Your task to perform on an android device: turn off location history Image 0: 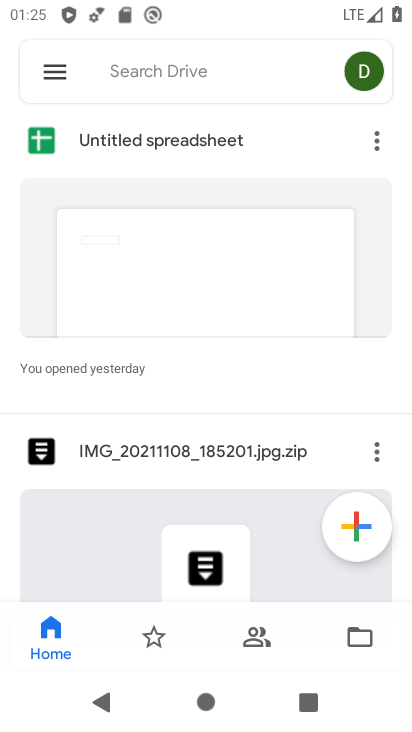
Step 0: press home button
Your task to perform on an android device: turn off location history Image 1: 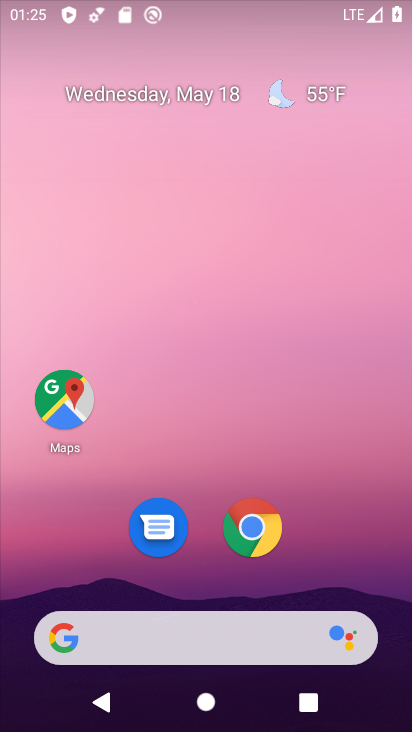
Step 1: drag from (291, 375) to (237, 66)
Your task to perform on an android device: turn off location history Image 2: 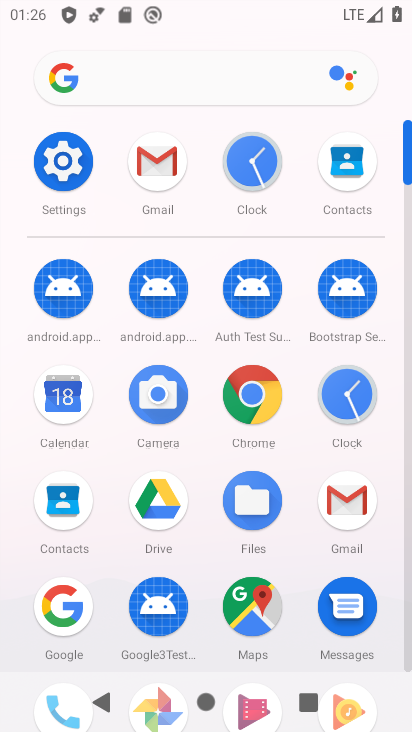
Step 2: click (68, 151)
Your task to perform on an android device: turn off location history Image 3: 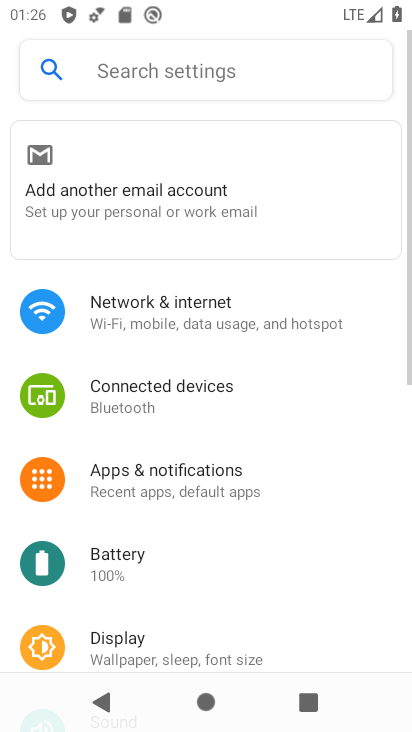
Step 3: drag from (194, 616) to (181, 40)
Your task to perform on an android device: turn off location history Image 4: 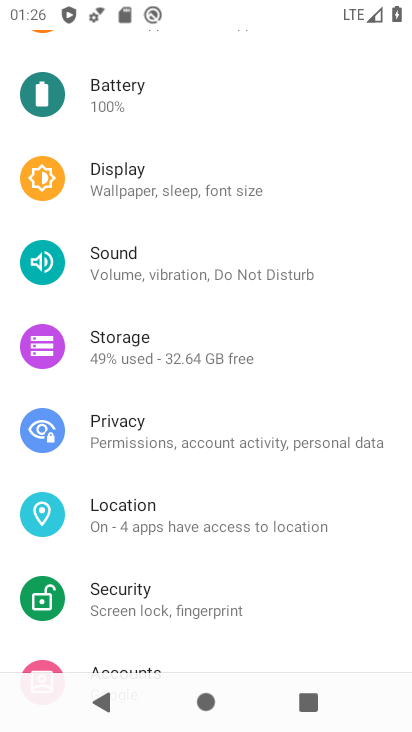
Step 4: click (173, 520)
Your task to perform on an android device: turn off location history Image 5: 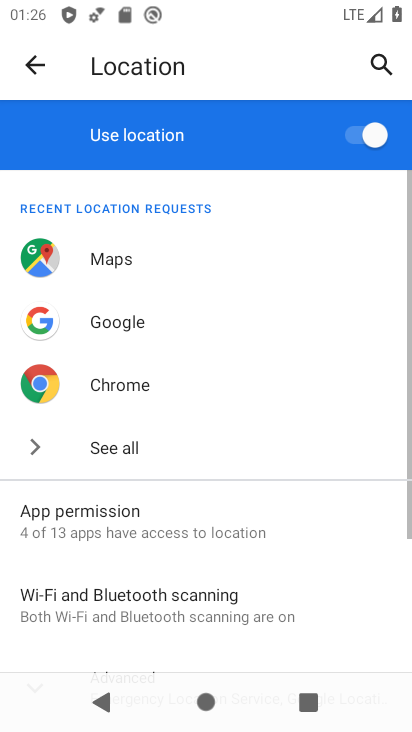
Step 5: drag from (248, 532) to (229, 172)
Your task to perform on an android device: turn off location history Image 6: 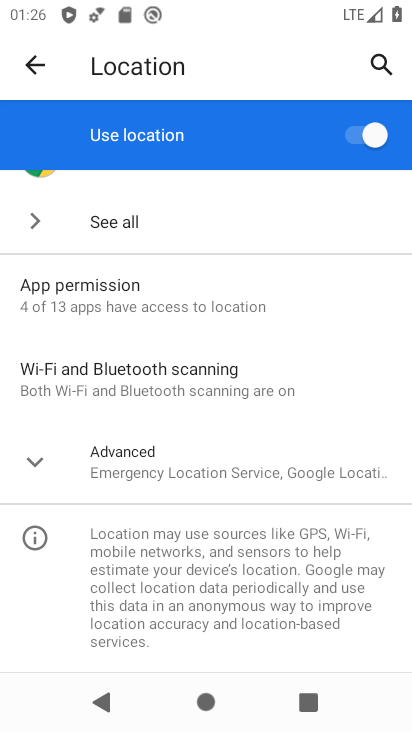
Step 6: click (159, 457)
Your task to perform on an android device: turn off location history Image 7: 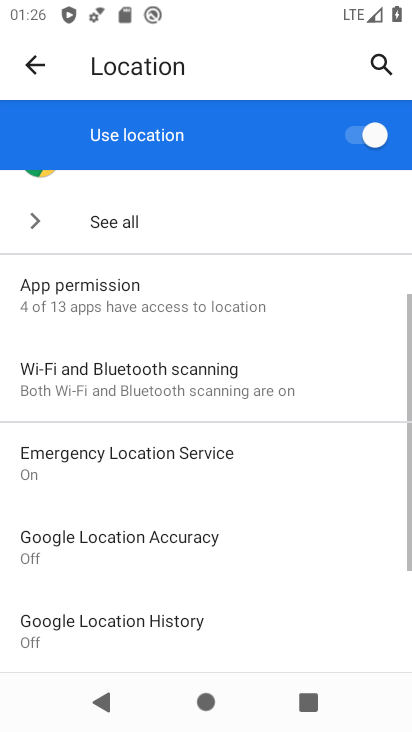
Step 7: drag from (240, 591) to (227, 427)
Your task to perform on an android device: turn off location history Image 8: 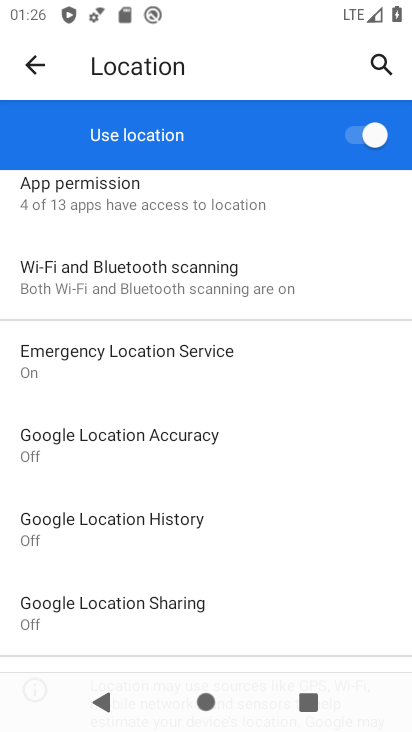
Step 8: click (155, 521)
Your task to perform on an android device: turn off location history Image 9: 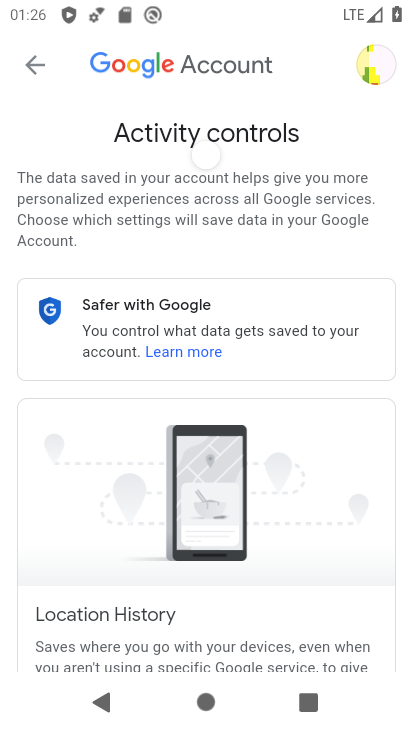
Step 9: task complete